Your task to perform on an android device: Open calendar and show me the second week of next month Image 0: 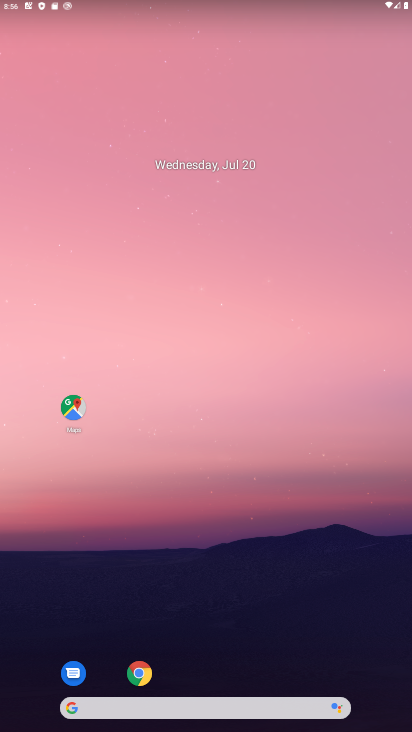
Step 0: drag from (200, 654) to (323, 94)
Your task to perform on an android device: Open calendar and show me the second week of next month Image 1: 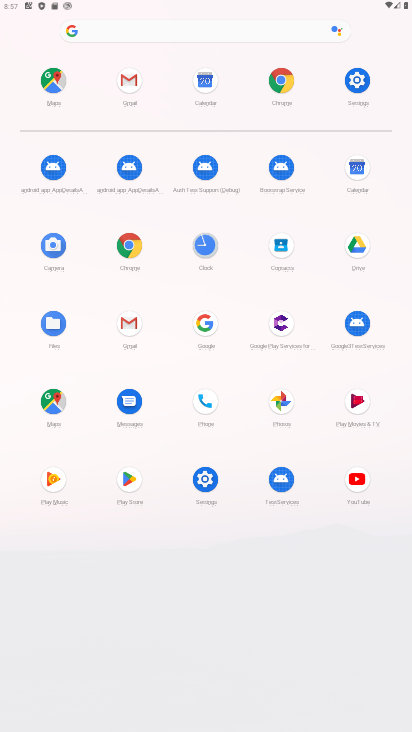
Step 1: drag from (195, 553) to (238, 247)
Your task to perform on an android device: Open calendar and show me the second week of next month Image 2: 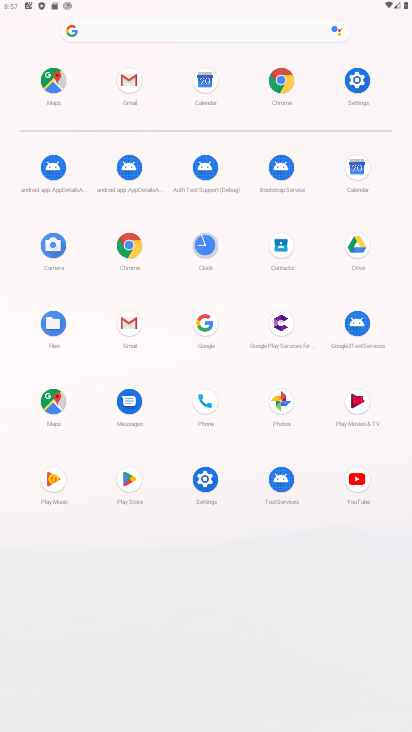
Step 2: click (360, 161)
Your task to perform on an android device: Open calendar and show me the second week of next month Image 3: 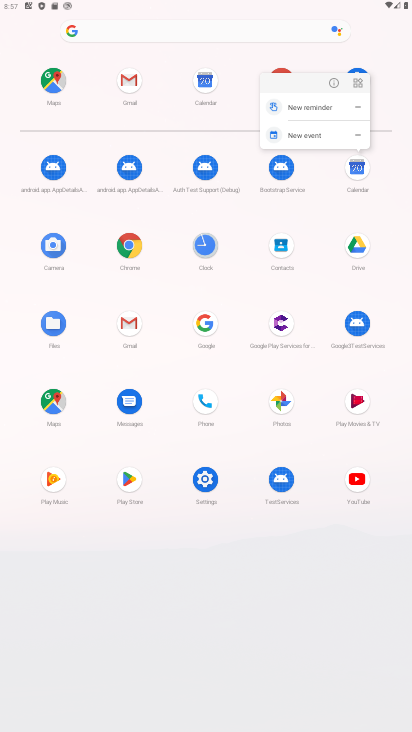
Step 3: click (325, 83)
Your task to perform on an android device: Open calendar and show me the second week of next month Image 4: 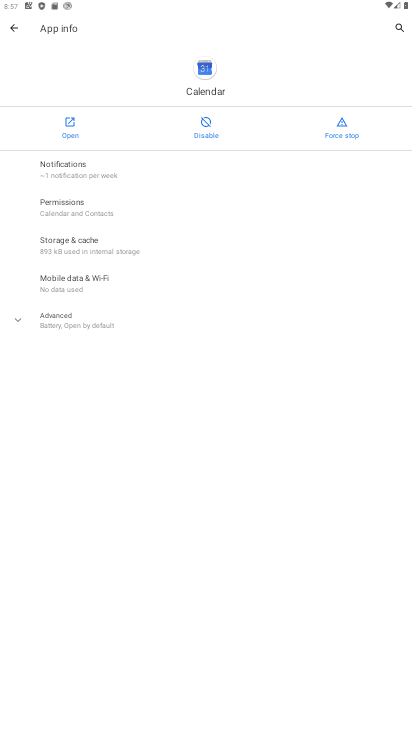
Step 4: click (69, 131)
Your task to perform on an android device: Open calendar and show me the second week of next month Image 5: 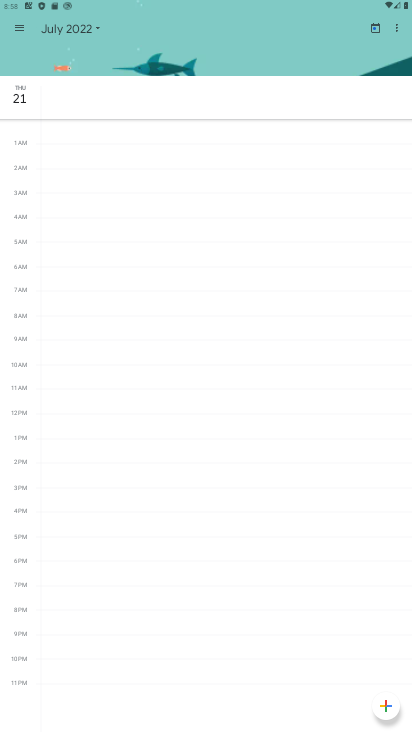
Step 5: click (86, 25)
Your task to perform on an android device: Open calendar and show me the second week of next month Image 6: 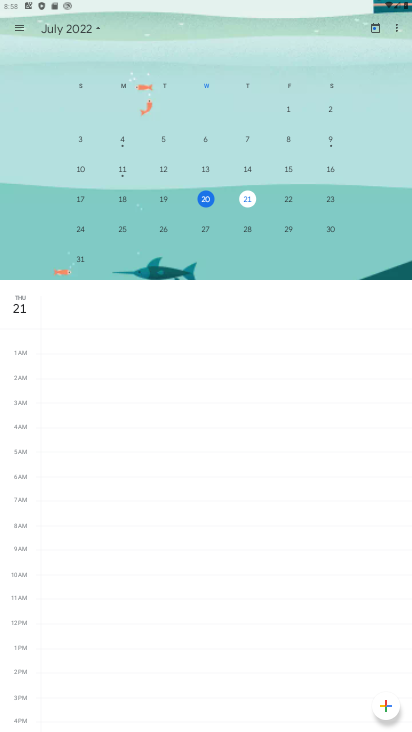
Step 6: drag from (326, 158) to (15, 165)
Your task to perform on an android device: Open calendar and show me the second week of next month Image 7: 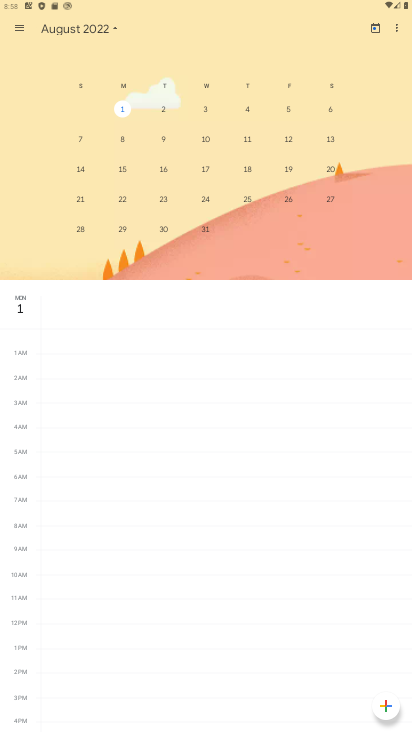
Step 7: click (248, 137)
Your task to perform on an android device: Open calendar and show me the second week of next month Image 8: 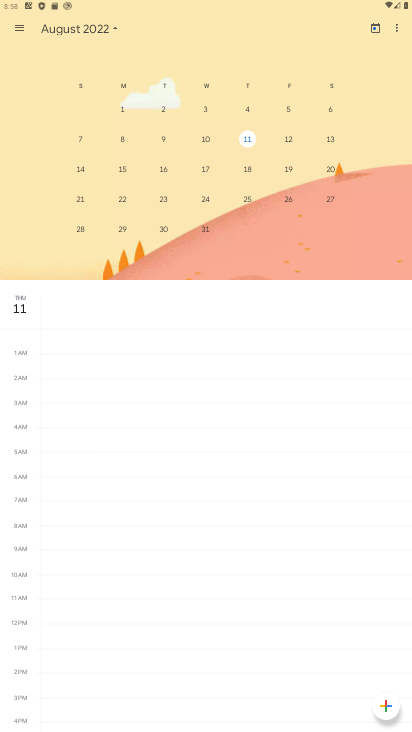
Step 8: task complete